Your task to perform on an android device: Search for a nice rug on Crate & Barrel Image 0: 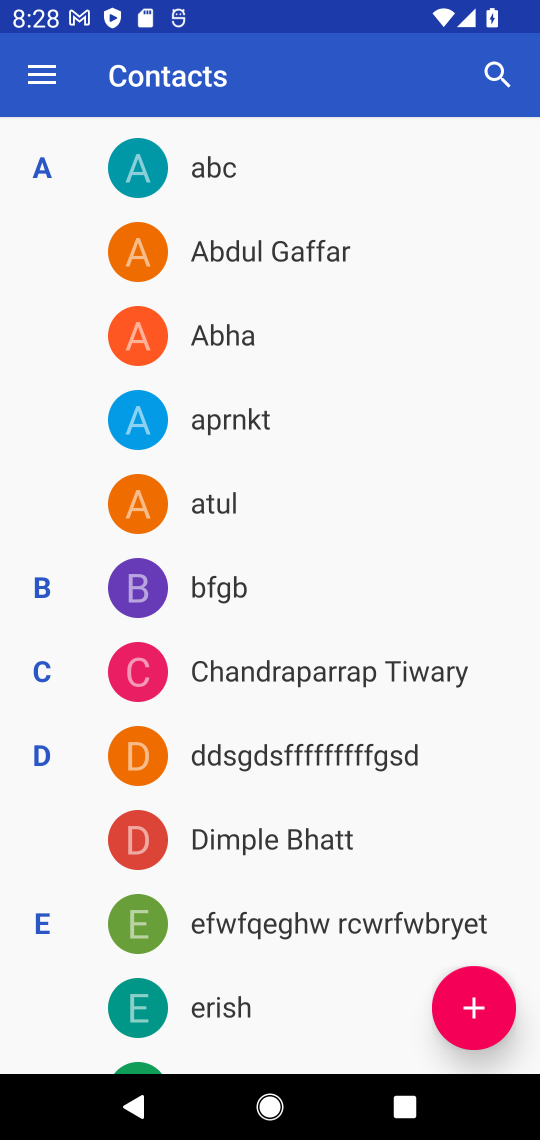
Step 0: press home button
Your task to perform on an android device: Search for a nice rug on Crate & Barrel Image 1: 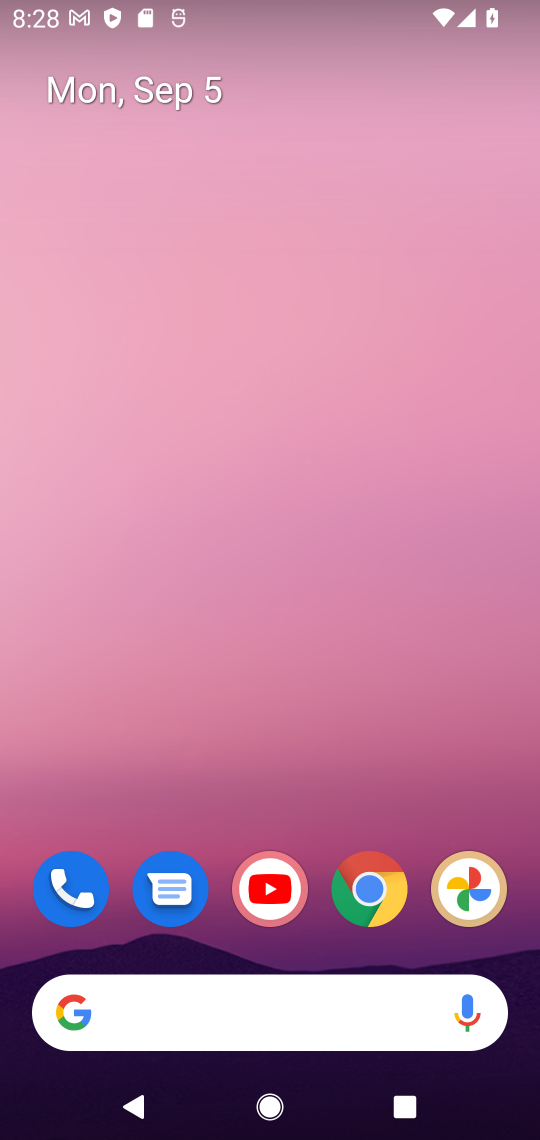
Step 1: click (221, 1006)
Your task to perform on an android device: Search for a nice rug on Crate & Barrel Image 2: 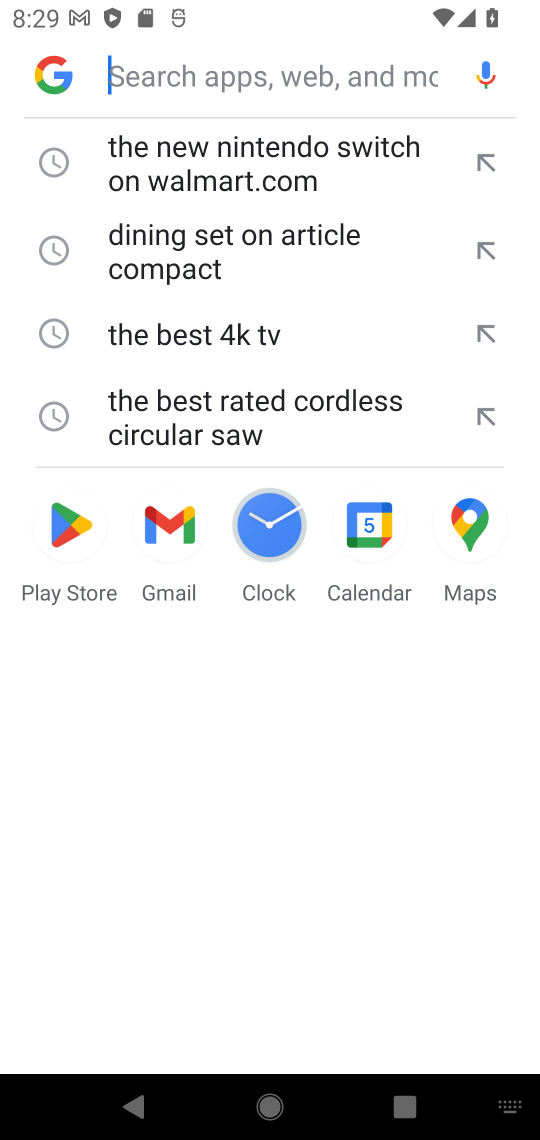
Step 2: type "a nice rug on Crate & Barrel"
Your task to perform on an android device: Search for a nice rug on Crate & Barrel Image 3: 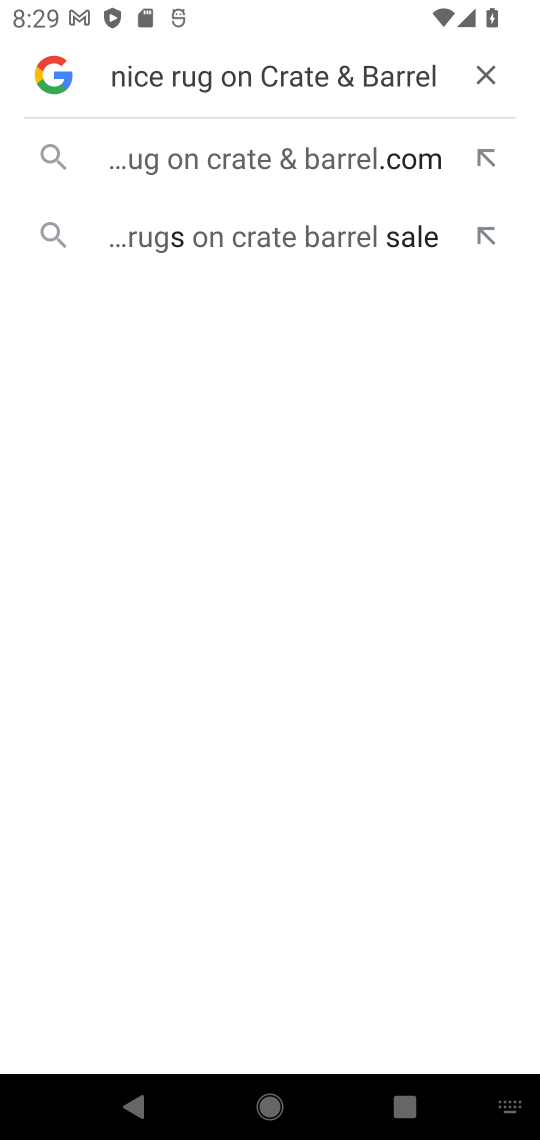
Step 3: click (377, 150)
Your task to perform on an android device: Search for a nice rug on Crate & Barrel Image 4: 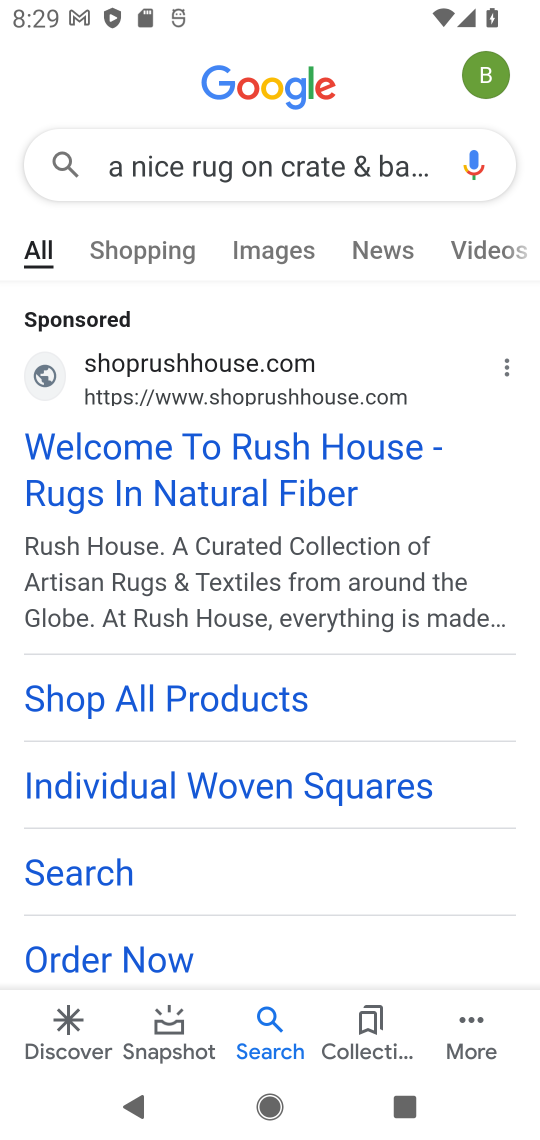
Step 4: task complete